Your task to perform on an android device: Search for Italian restaurants on Maps Image 0: 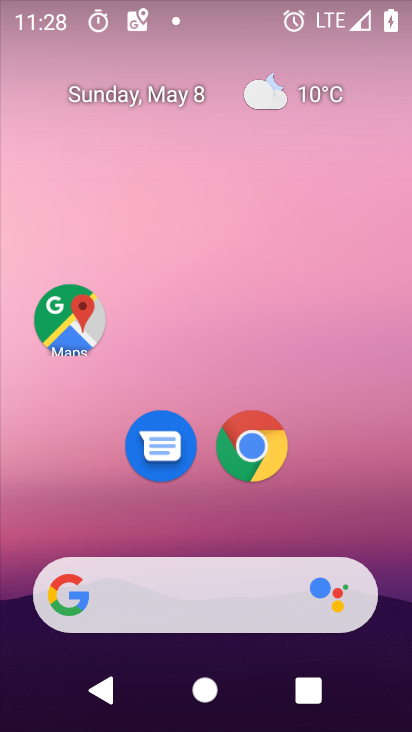
Step 0: click (69, 325)
Your task to perform on an android device: Search for Italian restaurants on Maps Image 1: 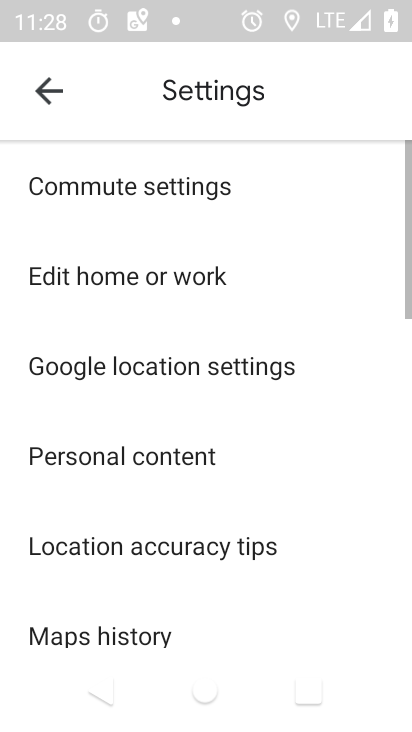
Step 1: click (41, 96)
Your task to perform on an android device: Search for Italian restaurants on Maps Image 2: 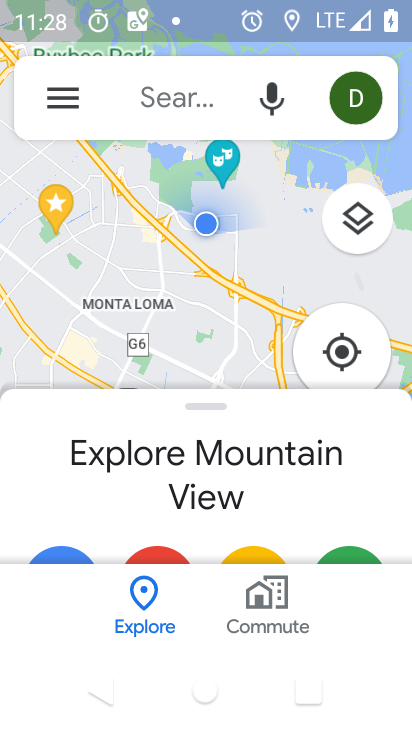
Step 2: click (152, 96)
Your task to perform on an android device: Search for Italian restaurants on Maps Image 3: 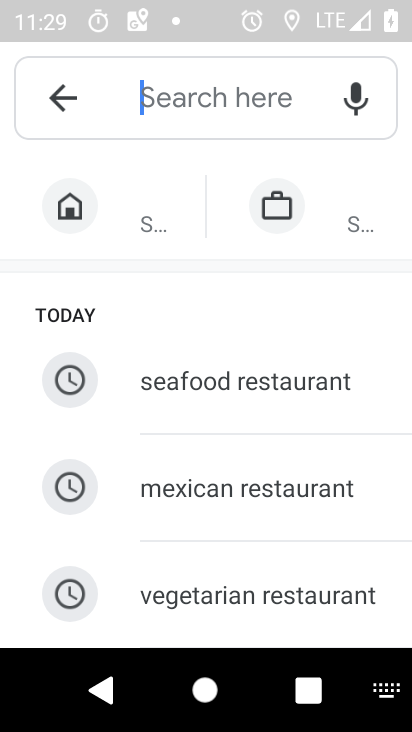
Step 3: type "italian restaurant"
Your task to perform on an android device: Search for Italian restaurants on Maps Image 4: 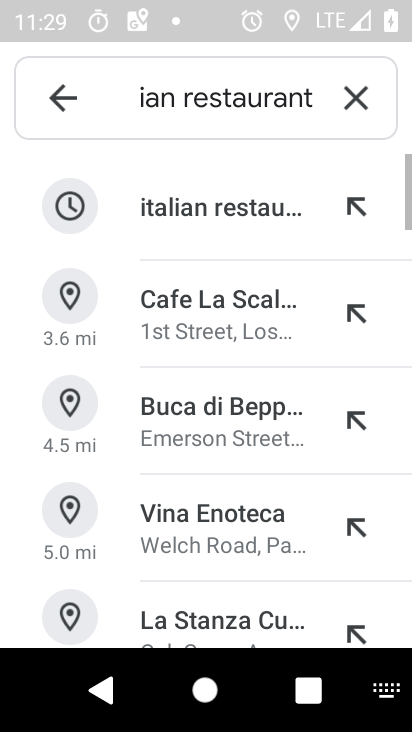
Step 4: click (246, 212)
Your task to perform on an android device: Search for Italian restaurants on Maps Image 5: 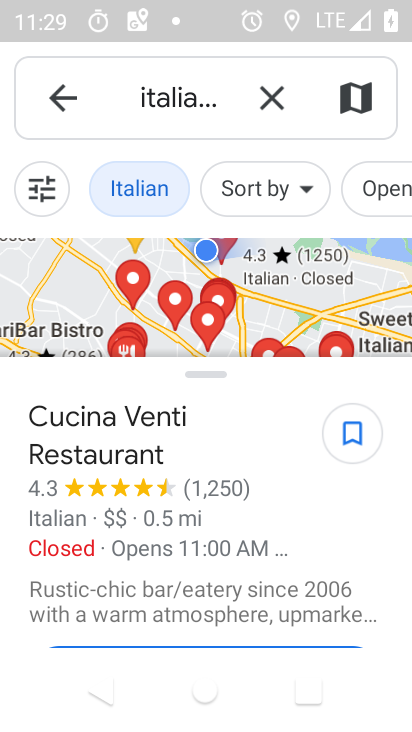
Step 5: task complete